Your task to perform on an android device: Is it going to rain this weekend? Image 0: 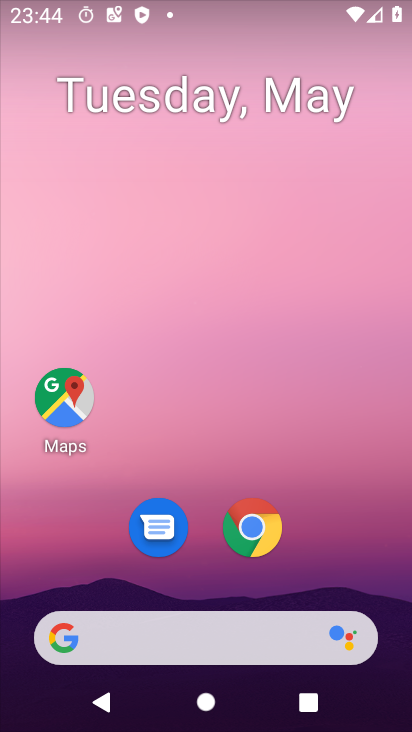
Step 0: drag from (212, 549) to (232, 102)
Your task to perform on an android device: Is it going to rain this weekend? Image 1: 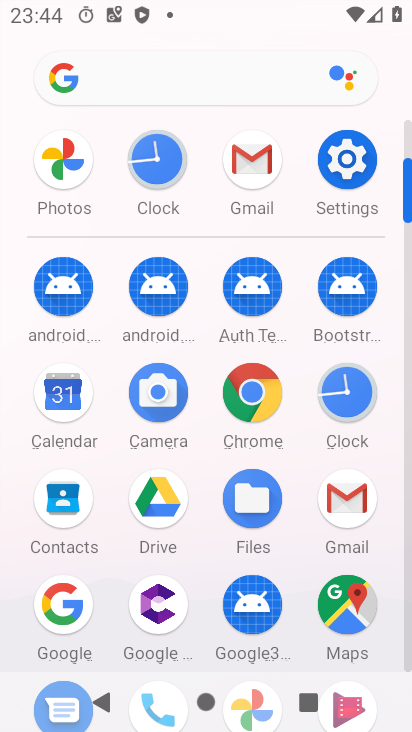
Step 1: click (93, 384)
Your task to perform on an android device: Is it going to rain this weekend? Image 2: 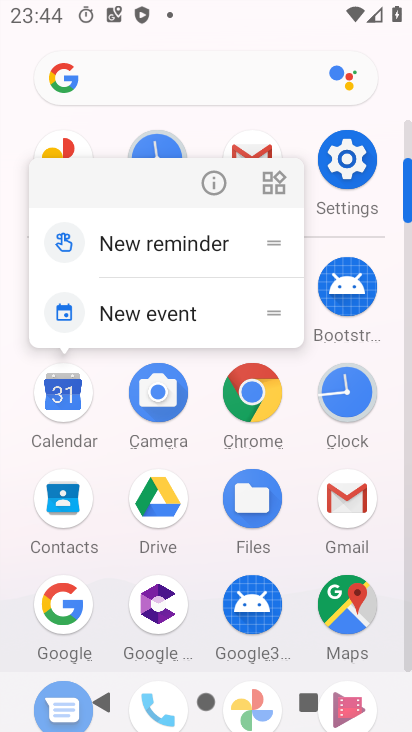
Step 2: click (213, 190)
Your task to perform on an android device: Is it going to rain this weekend? Image 3: 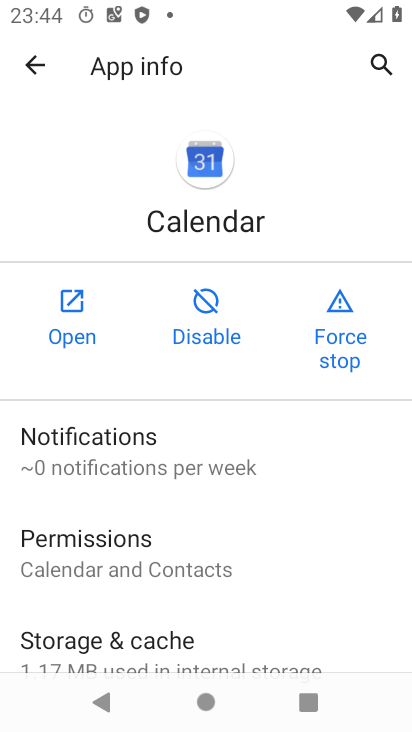
Step 3: click (67, 283)
Your task to perform on an android device: Is it going to rain this weekend? Image 4: 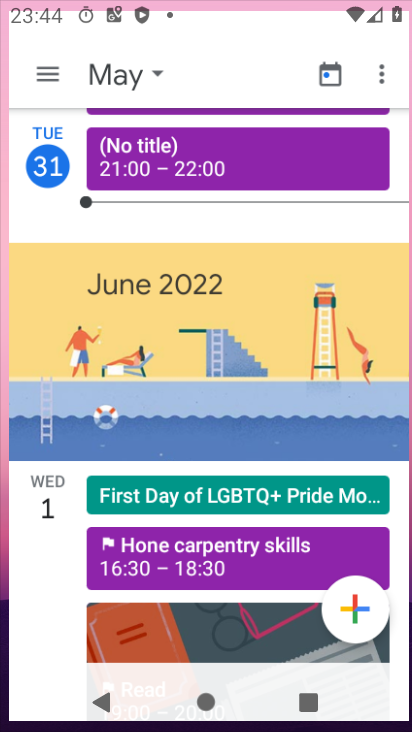
Step 4: drag from (192, 516) to (272, 4)
Your task to perform on an android device: Is it going to rain this weekend? Image 5: 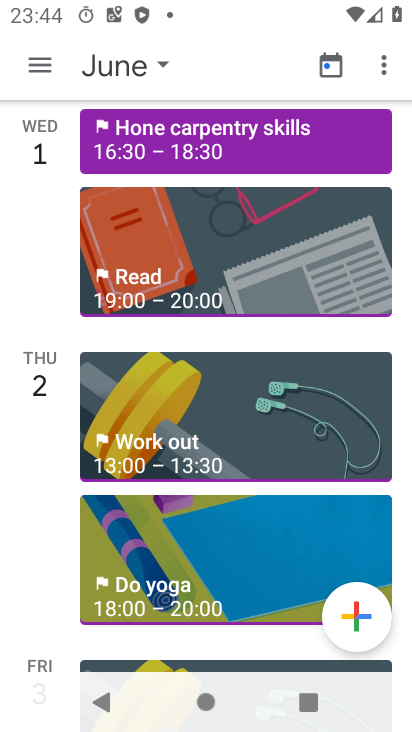
Step 5: drag from (174, 254) to (379, 728)
Your task to perform on an android device: Is it going to rain this weekend? Image 6: 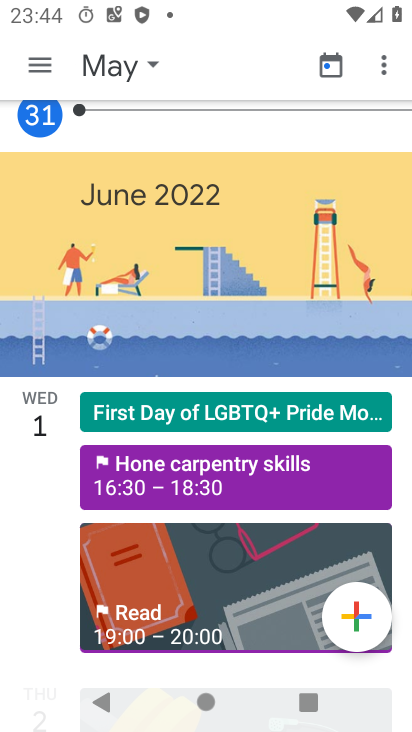
Step 6: drag from (244, 125) to (241, 572)
Your task to perform on an android device: Is it going to rain this weekend? Image 7: 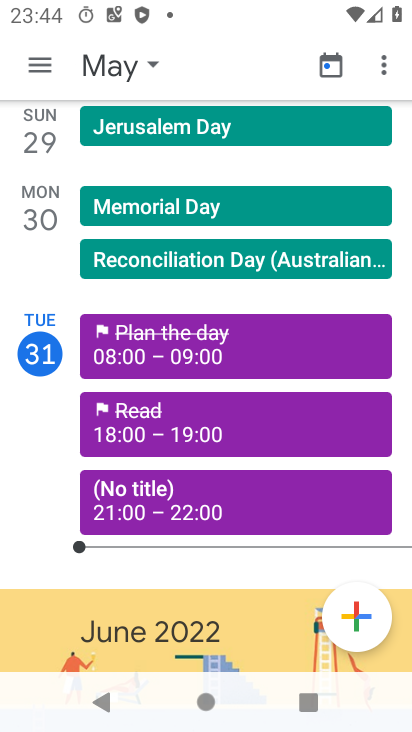
Step 7: drag from (155, 286) to (317, 730)
Your task to perform on an android device: Is it going to rain this weekend? Image 8: 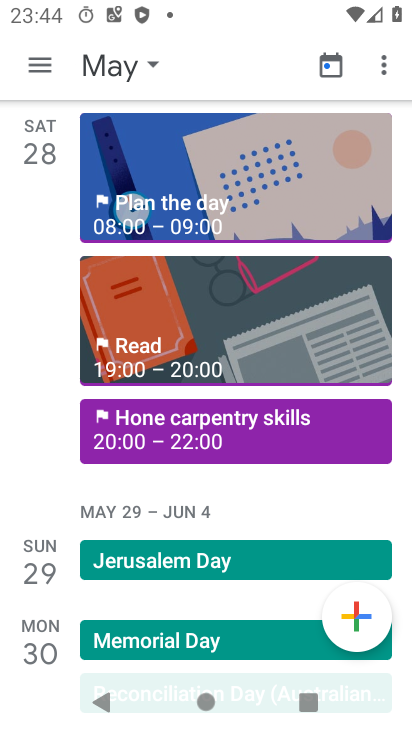
Step 8: press home button
Your task to perform on an android device: Is it going to rain this weekend? Image 9: 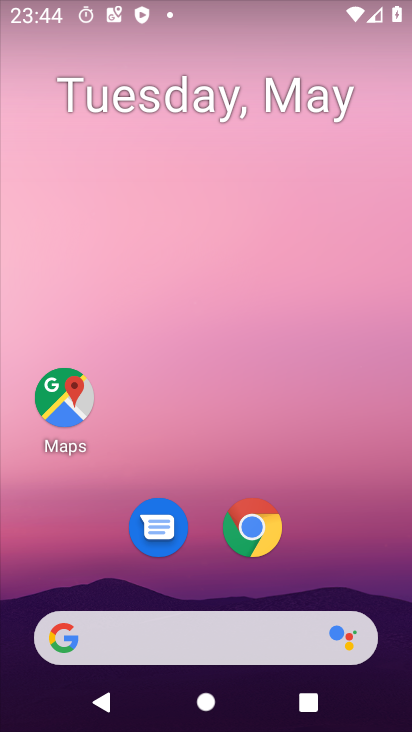
Step 9: drag from (219, 571) to (184, 132)
Your task to perform on an android device: Is it going to rain this weekend? Image 10: 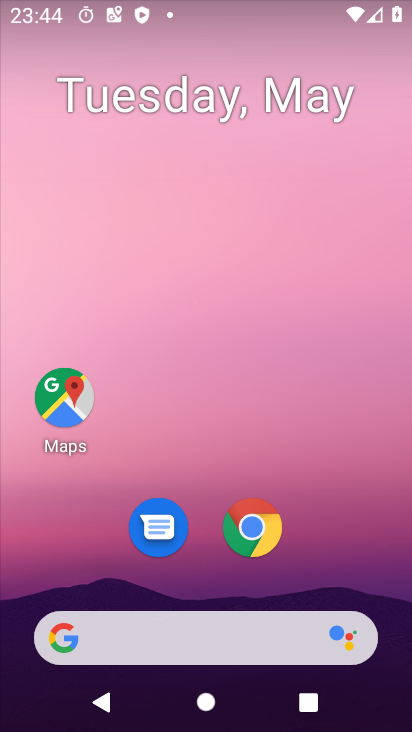
Step 10: drag from (198, 595) to (198, 205)
Your task to perform on an android device: Is it going to rain this weekend? Image 11: 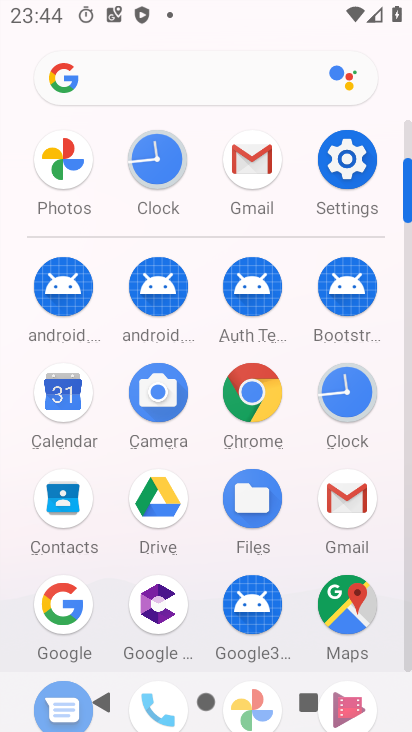
Step 11: click (166, 67)
Your task to perform on an android device: Is it going to rain this weekend? Image 12: 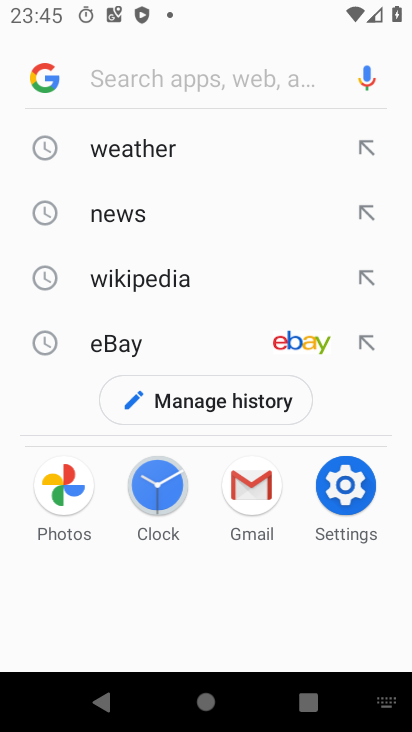
Step 12: type "rain this weekend?"
Your task to perform on an android device: Is it going to rain this weekend? Image 13: 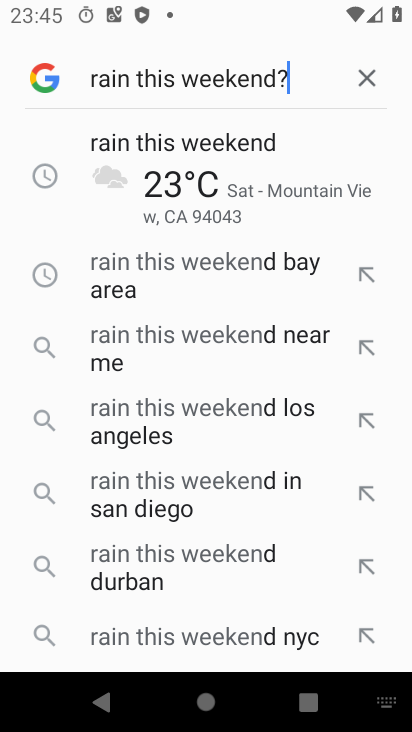
Step 13: type ""
Your task to perform on an android device: Is it going to rain this weekend? Image 14: 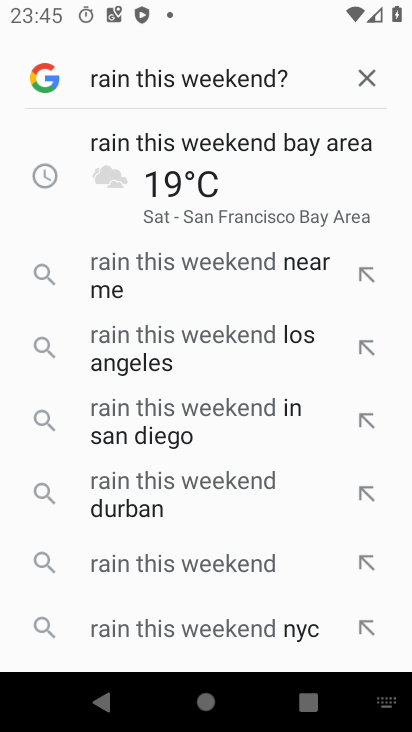
Step 14: click (184, 183)
Your task to perform on an android device: Is it going to rain this weekend? Image 15: 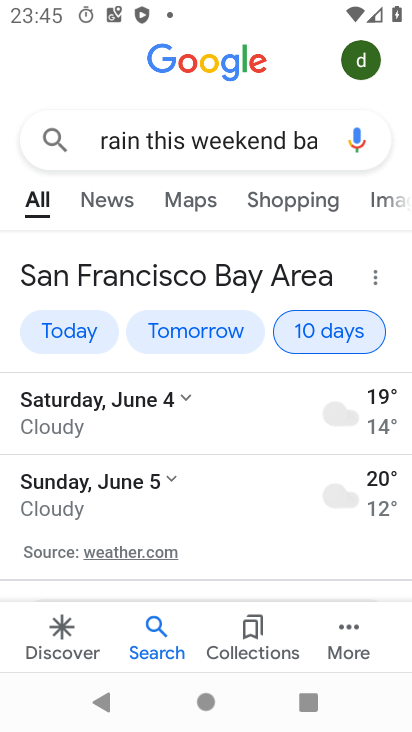
Step 15: task complete